Your task to perform on an android device: Go to display settings Image 0: 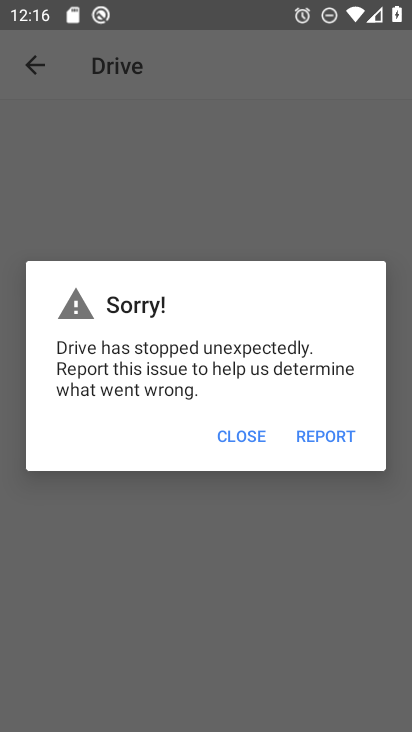
Step 0: press home button
Your task to perform on an android device: Go to display settings Image 1: 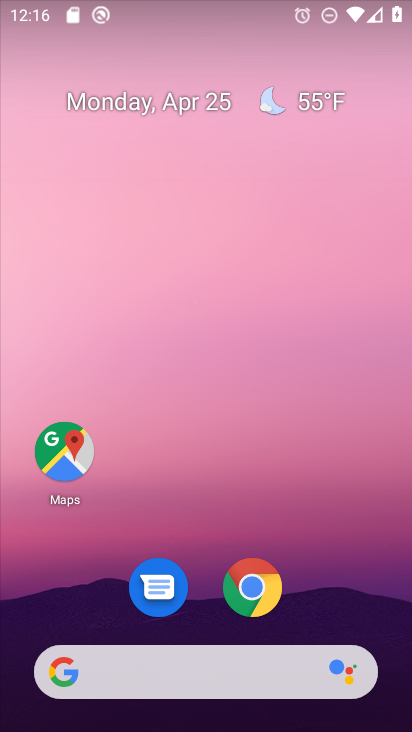
Step 1: drag from (339, 496) to (331, 213)
Your task to perform on an android device: Go to display settings Image 2: 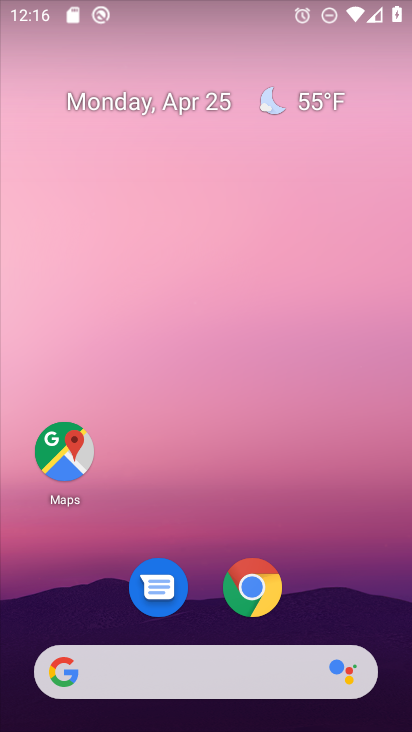
Step 2: drag from (349, 536) to (280, 175)
Your task to perform on an android device: Go to display settings Image 3: 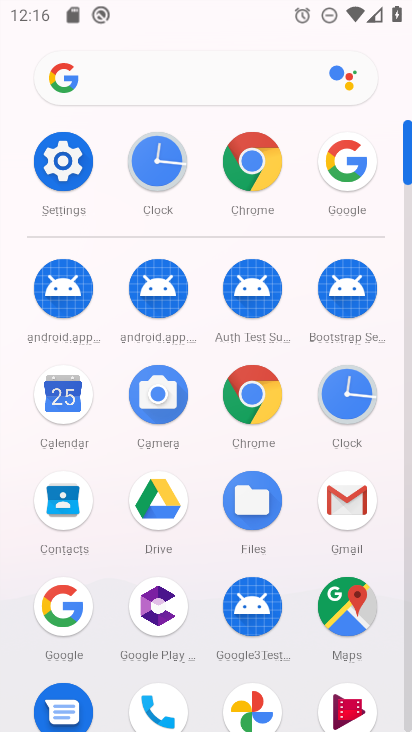
Step 3: click (63, 171)
Your task to perform on an android device: Go to display settings Image 4: 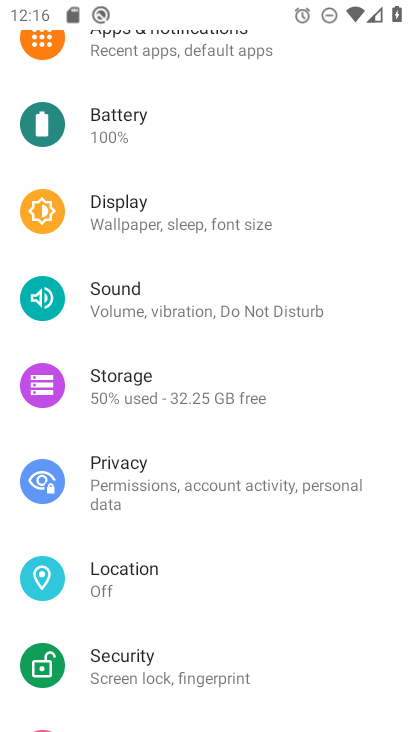
Step 4: click (171, 224)
Your task to perform on an android device: Go to display settings Image 5: 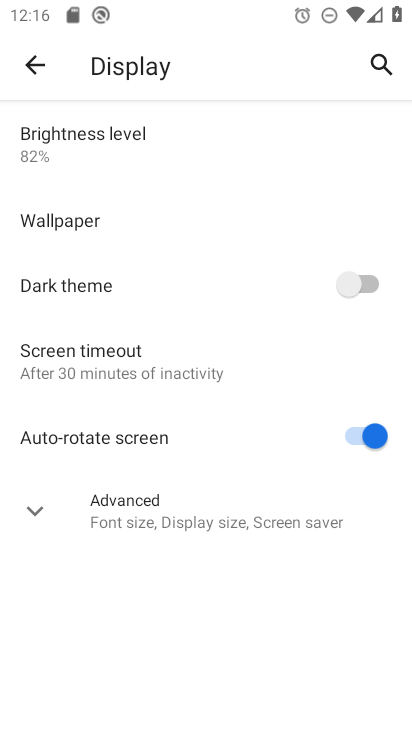
Step 5: task complete